Your task to perform on an android device: Go to Yahoo.com Image 0: 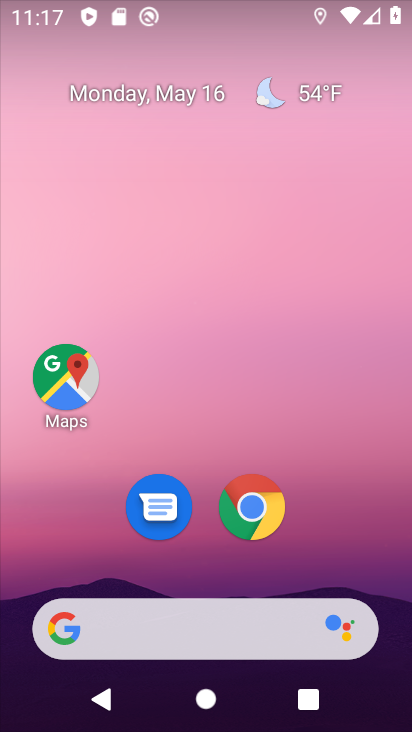
Step 0: click (273, 510)
Your task to perform on an android device: Go to Yahoo.com Image 1: 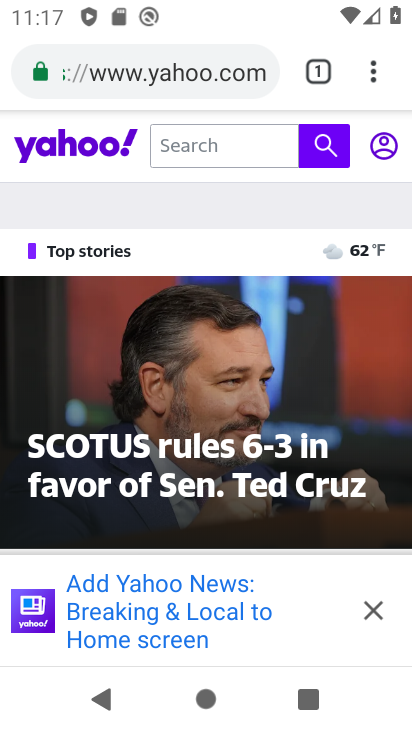
Step 1: task complete